Your task to perform on an android device: see tabs open on other devices in the chrome app Image 0: 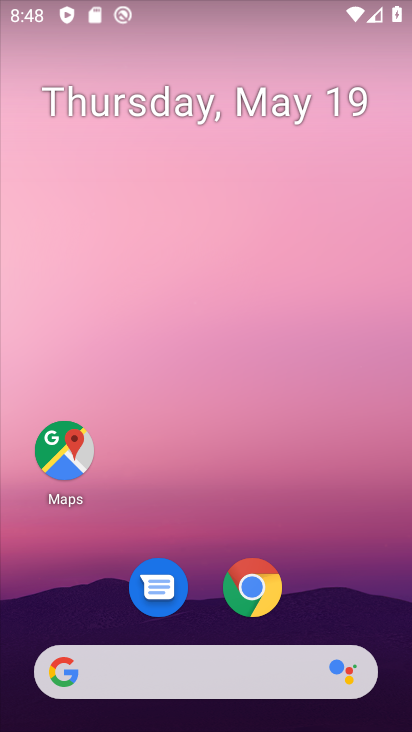
Step 0: click (255, 591)
Your task to perform on an android device: see tabs open on other devices in the chrome app Image 1: 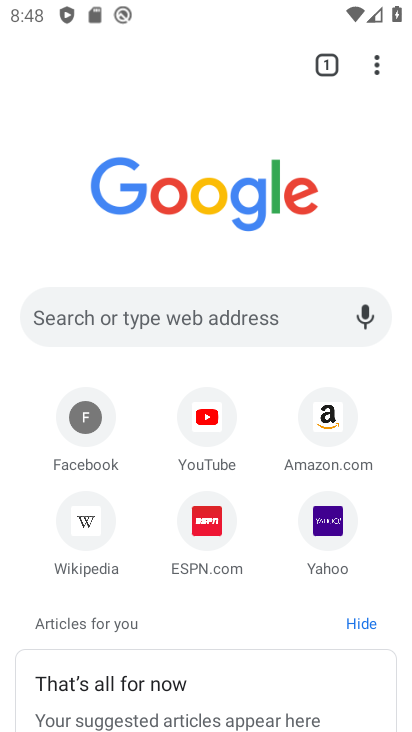
Step 1: task complete